Your task to perform on an android device: Add logitech g pro to the cart on costco.com, then select checkout. Image 0: 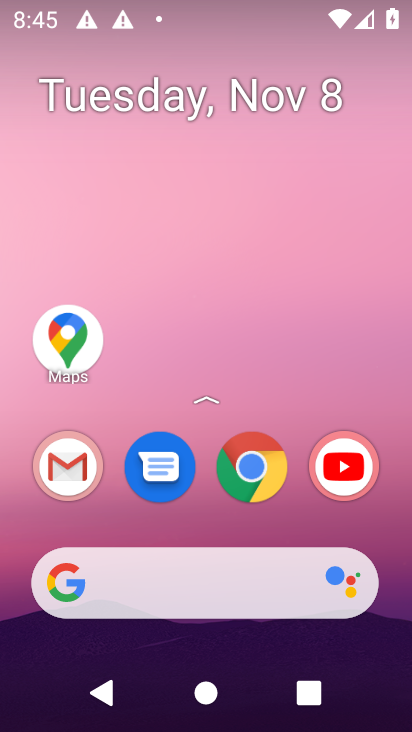
Step 0: click (217, 569)
Your task to perform on an android device: Add logitech g pro to the cart on costco.com, then select checkout. Image 1: 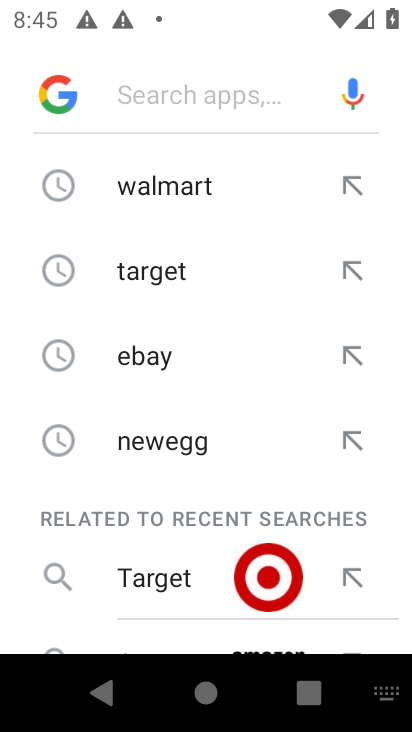
Step 1: type "costco"
Your task to perform on an android device: Add logitech g pro to the cart on costco.com, then select checkout. Image 2: 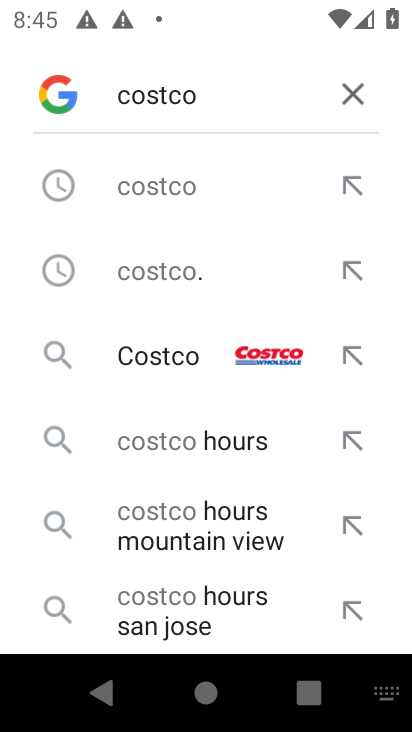
Step 2: click (175, 357)
Your task to perform on an android device: Add logitech g pro to the cart on costco.com, then select checkout. Image 3: 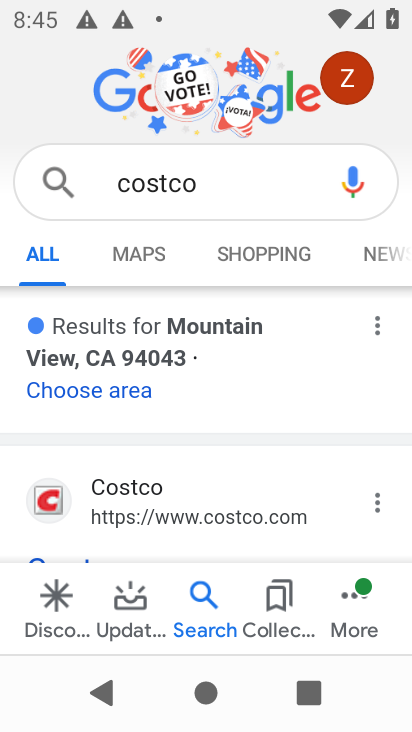
Step 3: click (138, 503)
Your task to perform on an android device: Add logitech g pro to the cart on costco.com, then select checkout. Image 4: 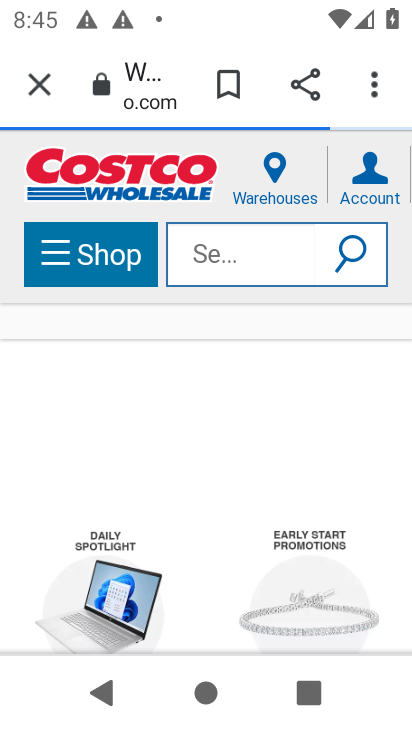
Step 4: task complete